Your task to perform on an android device: change the clock style Image 0: 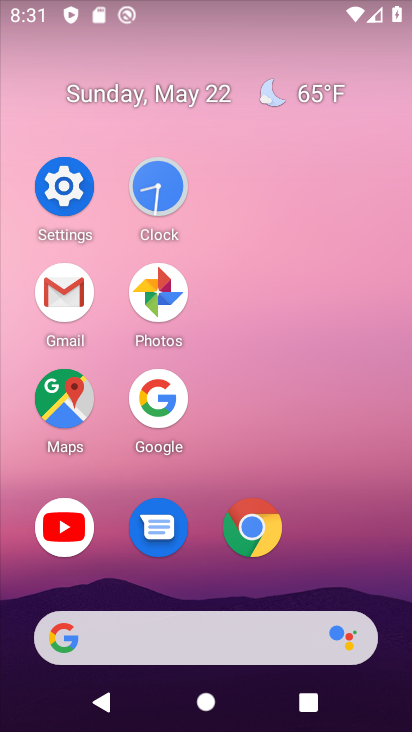
Step 0: click (174, 178)
Your task to perform on an android device: change the clock style Image 1: 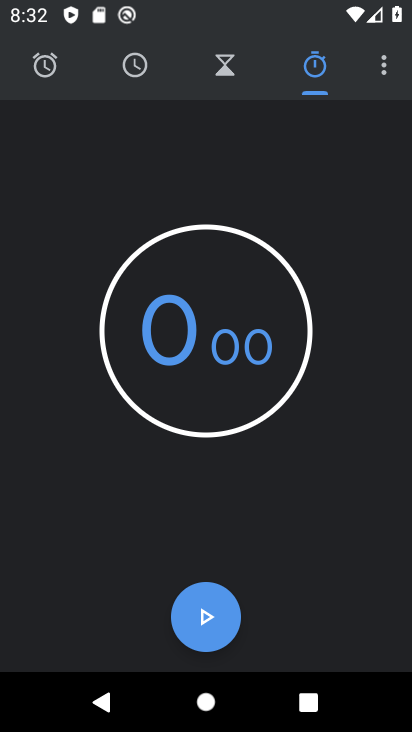
Step 1: click (387, 74)
Your task to perform on an android device: change the clock style Image 2: 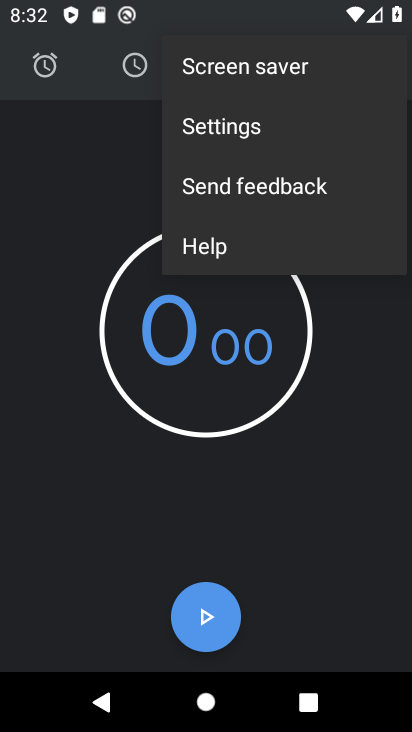
Step 2: click (263, 128)
Your task to perform on an android device: change the clock style Image 3: 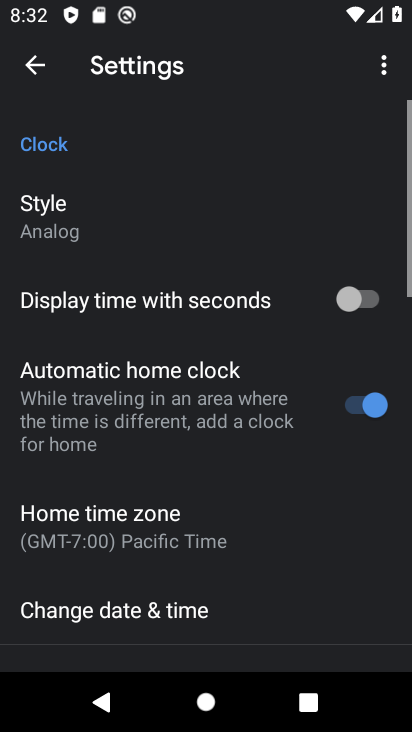
Step 3: click (112, 213)
Your task to perform on an android device: change the clock style Image 4: 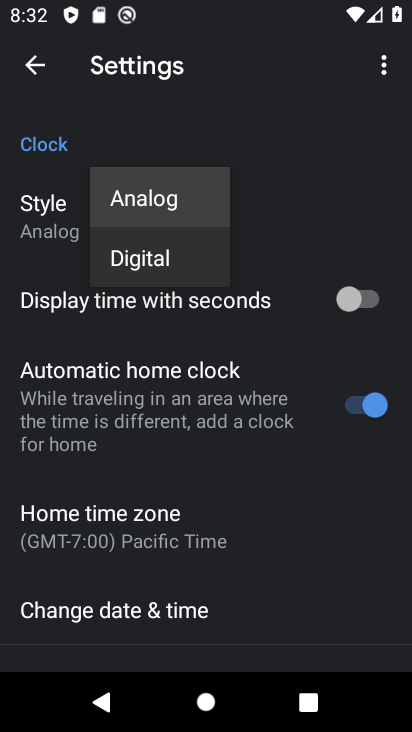
Step 4: click (143, 273)
Your task to perform on an android device: change the clock style Image 5: 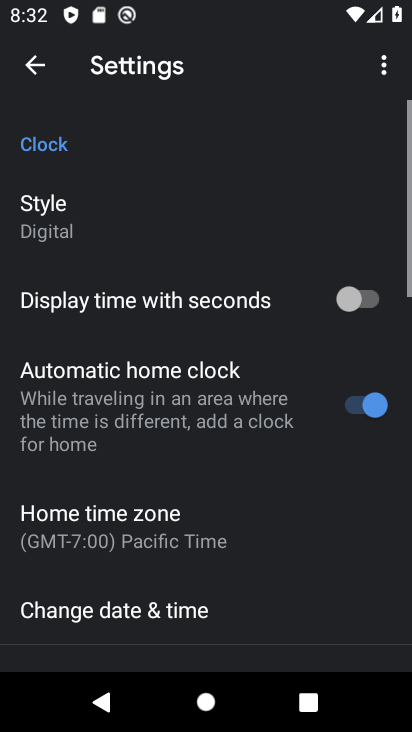
Step 5: task complete